Your task to perform on an android device: turn off smart reply in the gmail app Image 0: 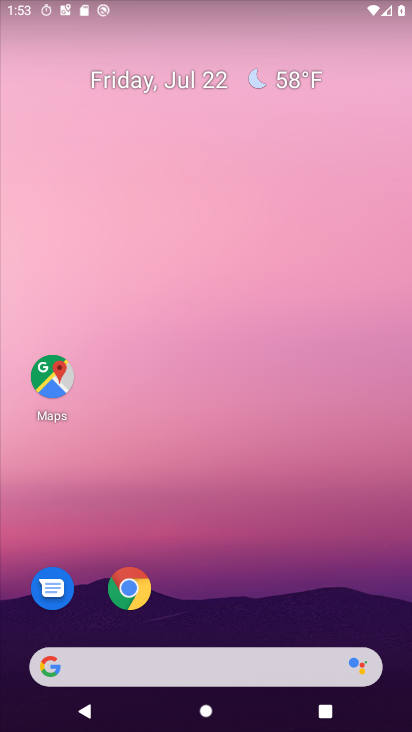
Step 0: press home button
Your task to perform on an android device: turn off smart reply in the gmail app Image 1: 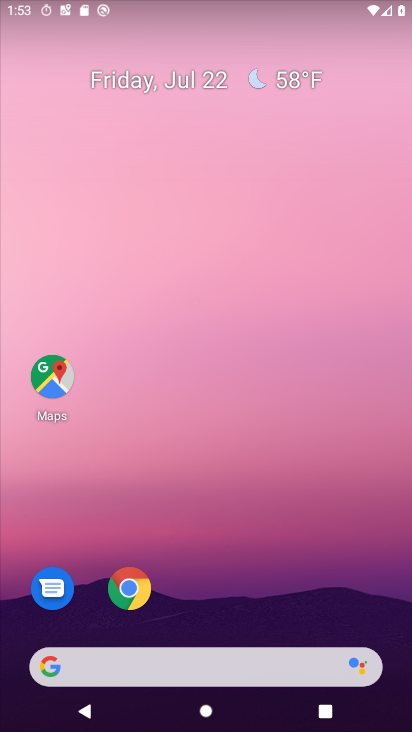
Step 1: drag from (293, 627) to (227, 51)
Your task to perform on an android device: turn off smart reply in the gmail app Image 2: 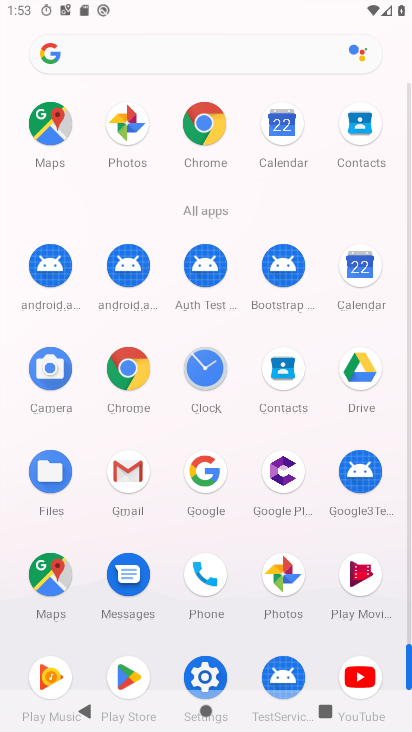
Step 2: click (138, 494)
Your task to perform on an android device: turn off smart reply in the gmail app Image 3: 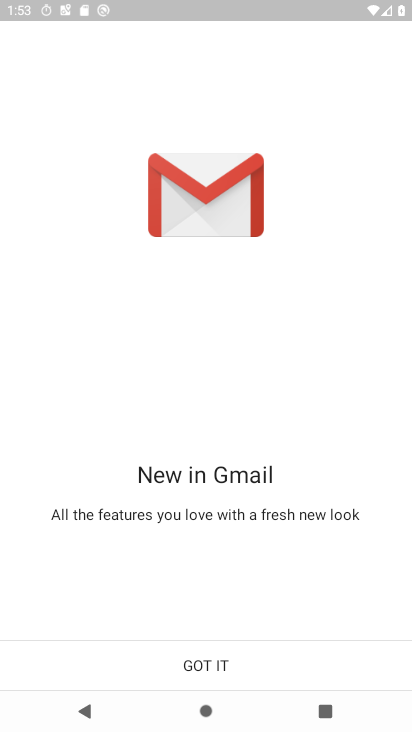
Step 3: click (227, 661)
Your task to perform on an android device: turn off smart reply in the gmail app Image 4: 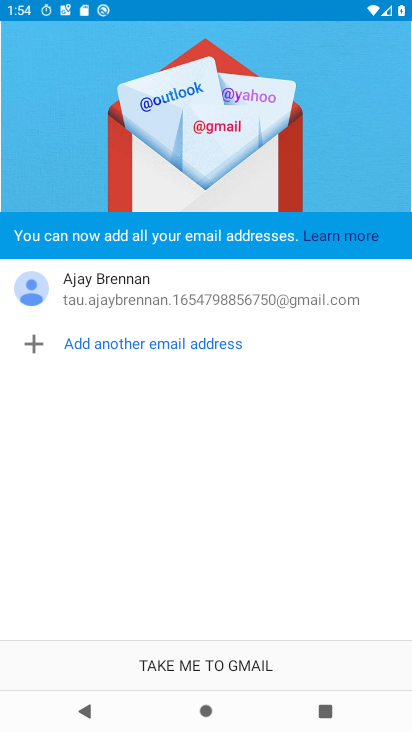
Step 4: click (175, 663)
Your task to perform on an android device: turn off smart reply in the gmail app Image 5: 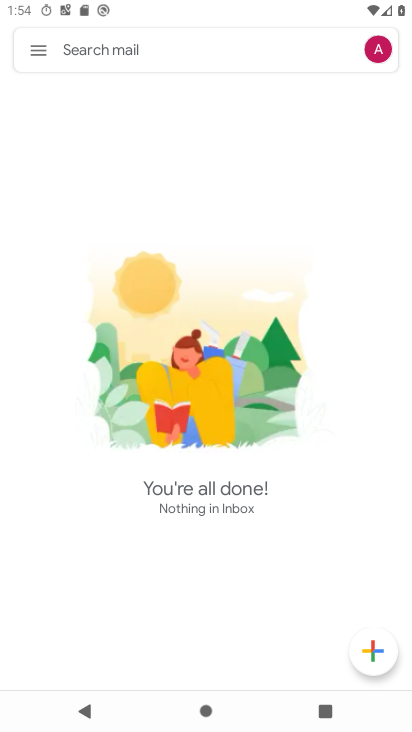
Step 5: click (39, 46)
Your task to perform on an android device: turn off smart reply in the gmail app Image 6: 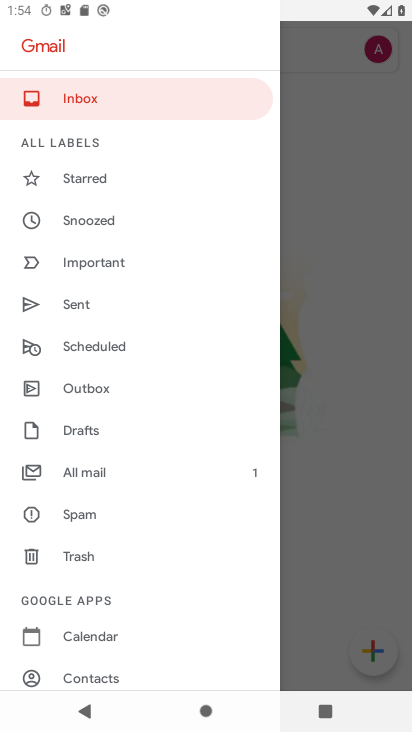
Step 6: drag from (113, 537) to (127, 179)
Your task to perform on an android device: turn off smart reply in the gmail app Image 7: 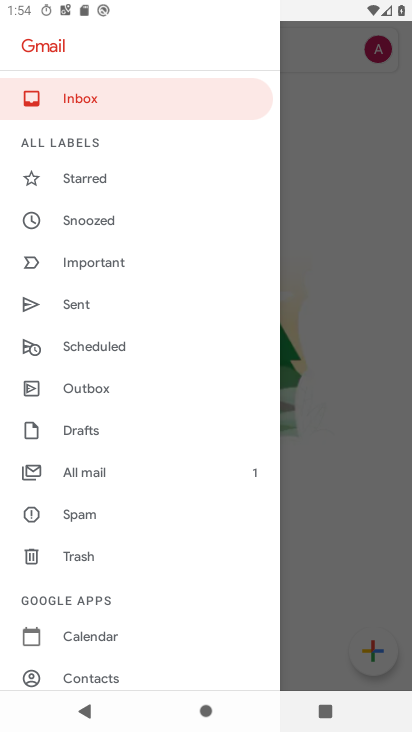
Step 7: drag from (53, 441) to (84, 178)
Your task to perform on an android device: turn off smart reply in the gmail app Image 8: 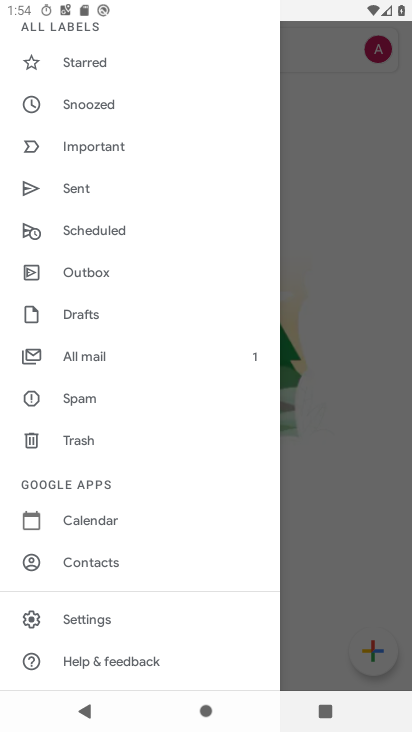
Step 8: click (70, 619)
Your task to perform on an android device: turn off smart reply in the gmail app Image 9: 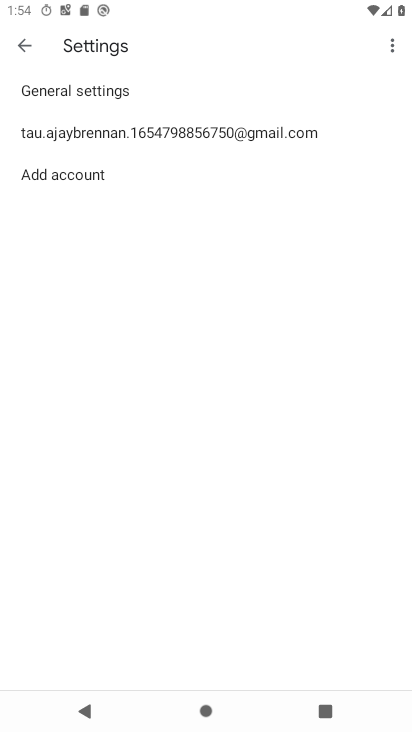
Step 9: click (187, 137)
Your task to perform on an android device: turn off smart reply in the gmail app Image 10: 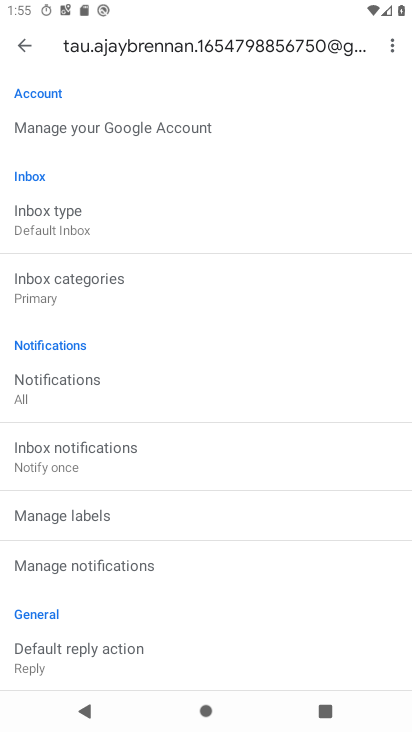
Step 10: drag from (140, 641) to (42, 306)
Your task to perform on an android device: turn off smart reply in the gmail app Image 11: 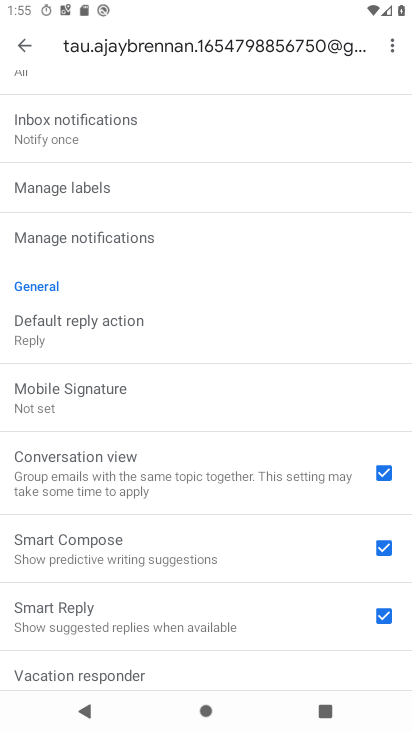
Step 11: click (57, 620)
Your task to perform on an android device: turn off smart reply in the gmail app Image 12: 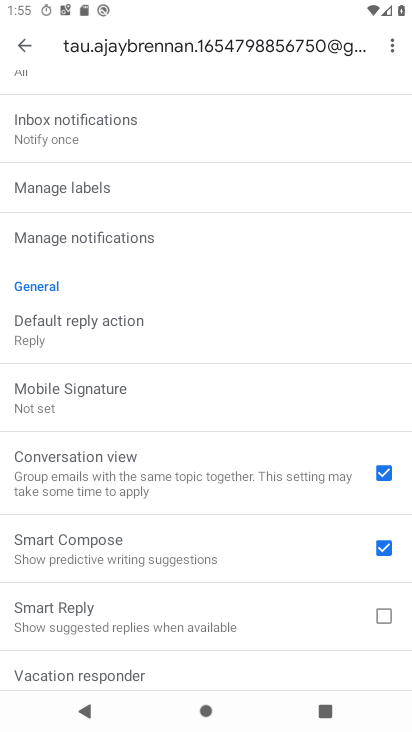
Step 12: task complete